Your task to perform on an android device: Show me popular games on the Play Store Image 0: 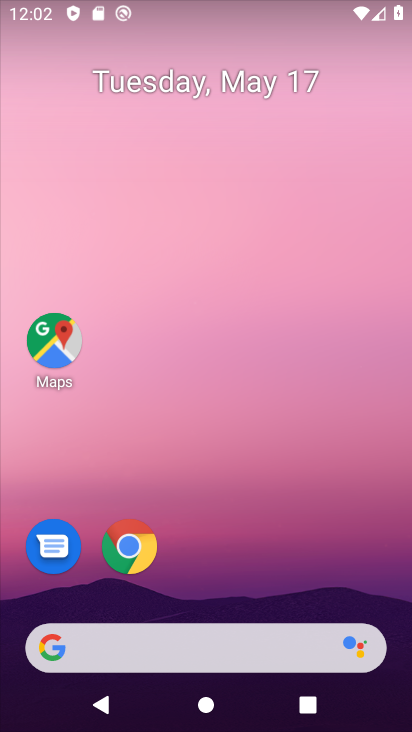
Step 0: drag from (224, 602) to (223, 75)
Your task to perform on an android device: Show me popular games on the Play Store Image 1: 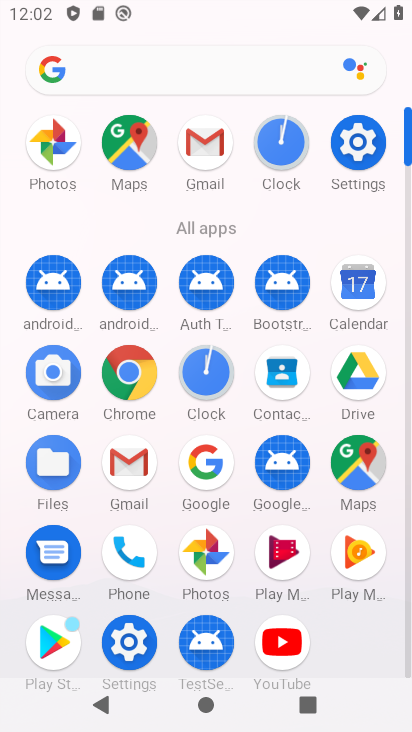
Step 1: click (47, 637)
Your task to perform on an android device: Show me popular games on the Play Store Image 2: 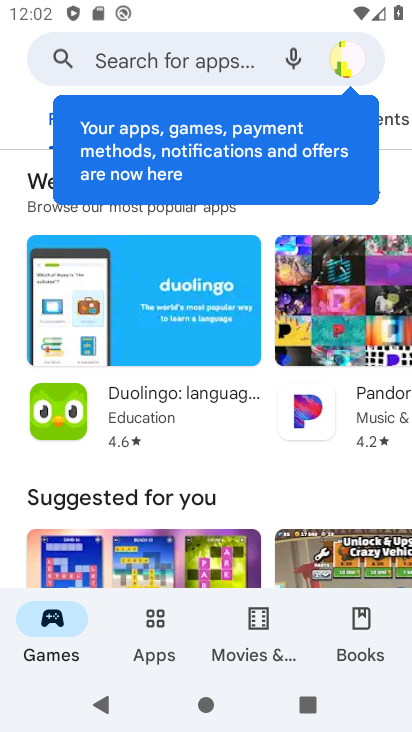
Step 2: drag from (241, 508) to (232, 228)
Your task to perform on an android device: Show me popular games on the Play Store Image 3: 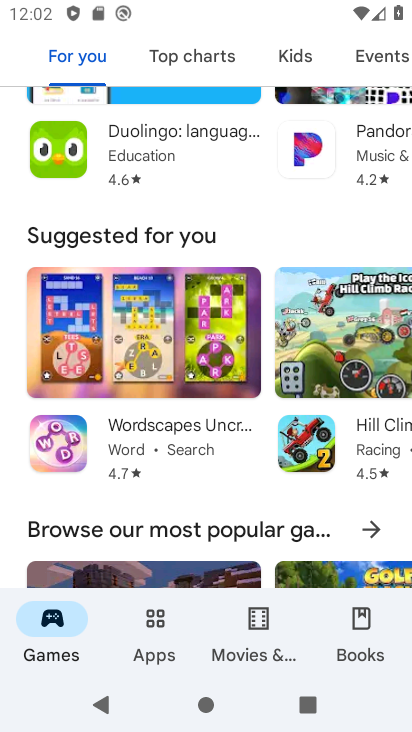
Step 3: click (374, 528)
Your task to perform on an android device: Show me popular games on the Play Store Image 4: 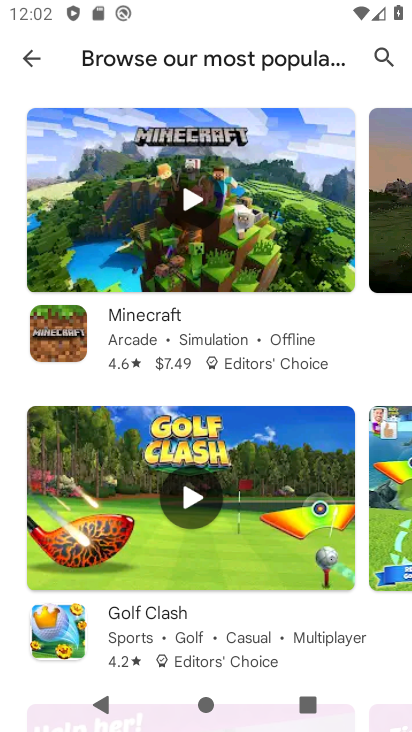
Step 4: task complete